Your task to perform on an android device: turn on data saver in the chrome app Image 0: 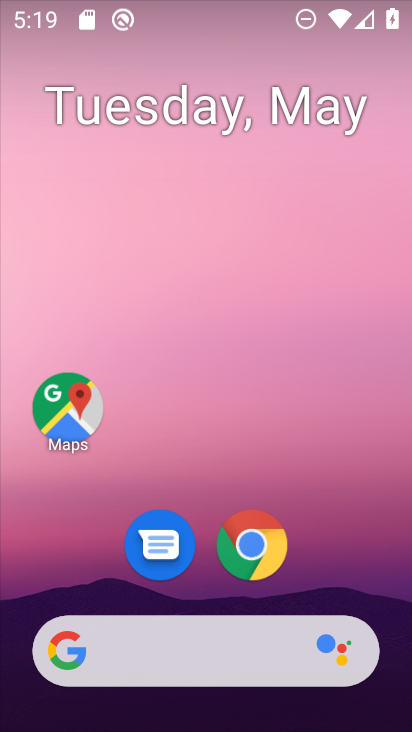
Step 0: drag from (342, 576) to (324, 33)
Your task to perform on an android device: turn on data saver in the chrome app Image 1: 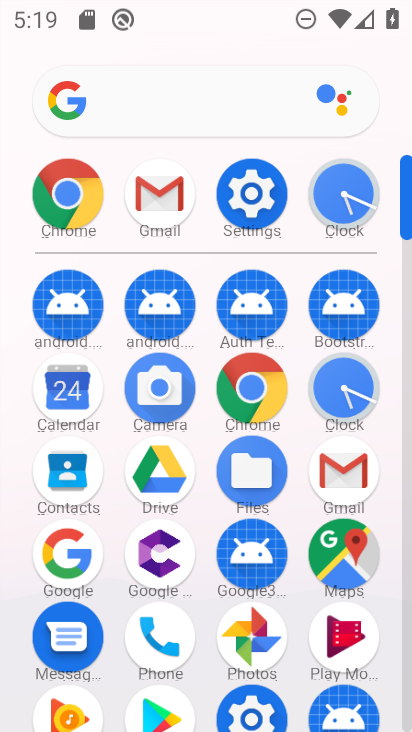
Step 1: drag from (11, 575) to (25, 308)
Your task to perform on an android device: turn on data saver in the chrome app Image 2: 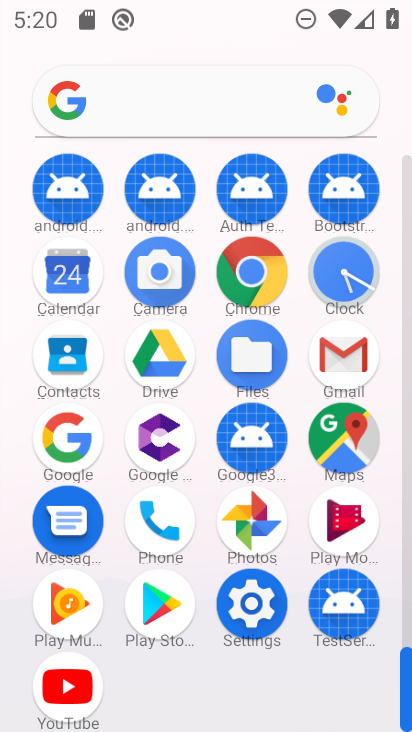
Step 2: drag from (11, 578) to (20, 306)
Your task to perform on an android device: turn on data saver in the chrome app Image 3: 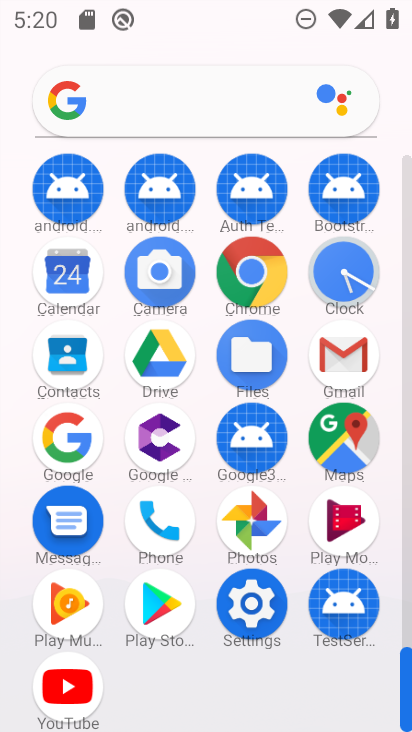
Step 3: click (248, 267)
Your task to perform on an android device: turn on data saver in the chrome app Image 4: 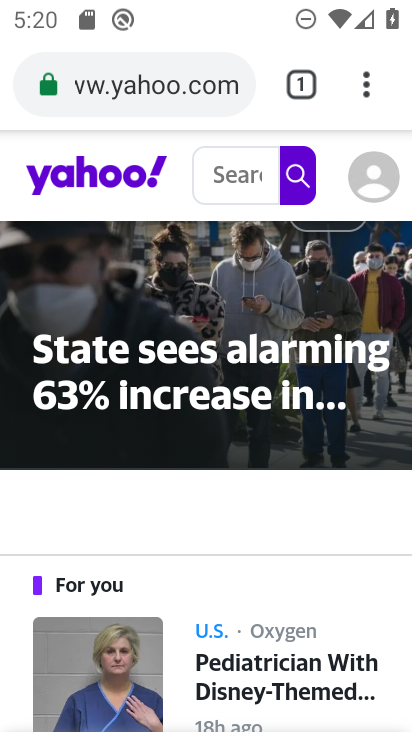
Step 4: drag from (370, 71) to (147, 572)
Your task to perform on an android device: turn on data saver in the chrome app Image 5: 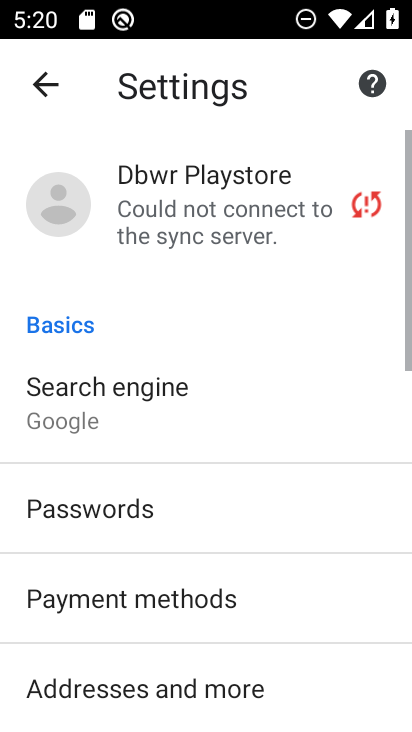
Step 5: drag from (267, 622) to (267, 243)
Your task to perform on an android device: turn on data saver in the chrome app Image 6: 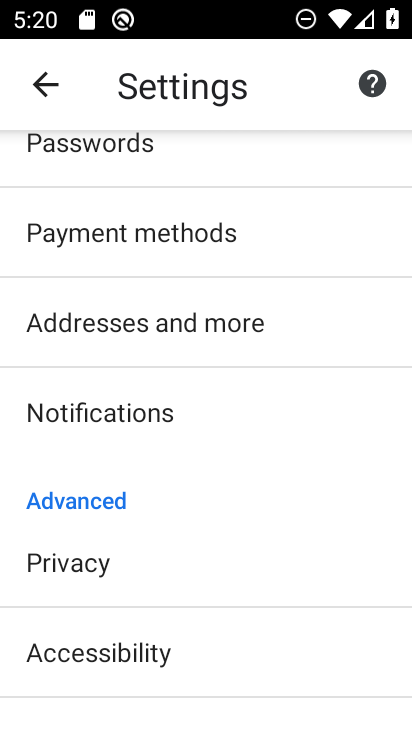
Step 6: drag from (213, 693) to (247, 262)
Your task to perform on an android device: turn on data saver in the chrome app Image 7: 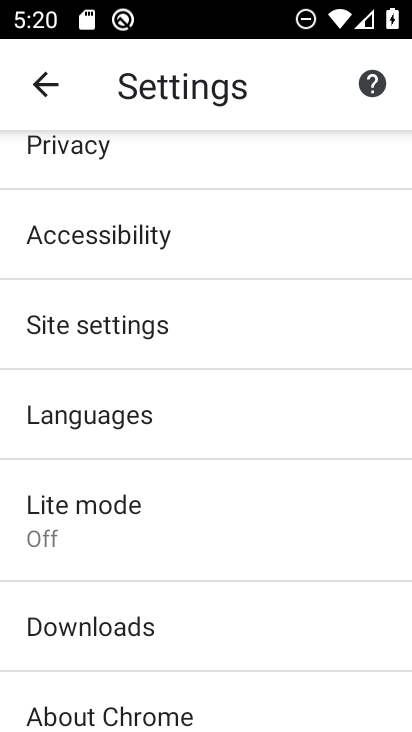
Step 7: click (172, 508)
Your task to perform on an android device: turn on data saver in the chrome app Image 8: 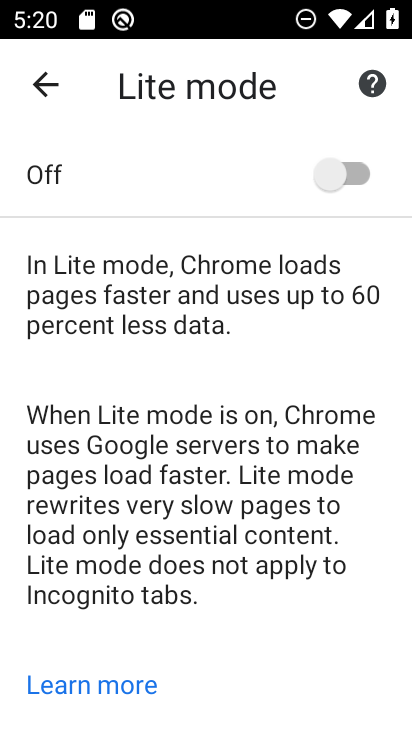
Step 8: click (335, 167)
Your task to perform on an android device: turn on data saver in the chrome app Image 9: 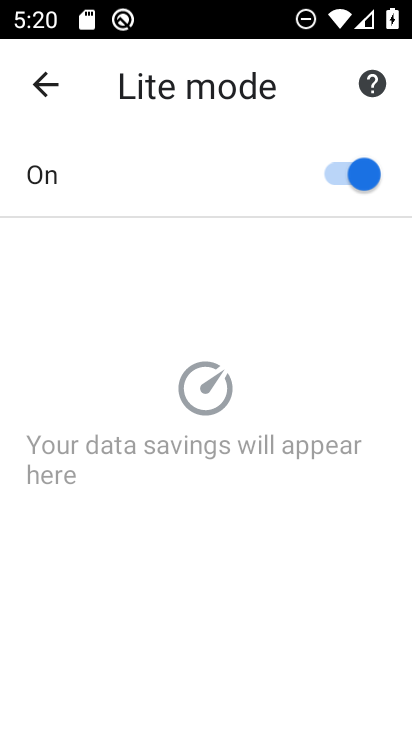
Step 9: task complete